Your task to perform on an android device: see tabs open on other devices in the chrome app Image 0: 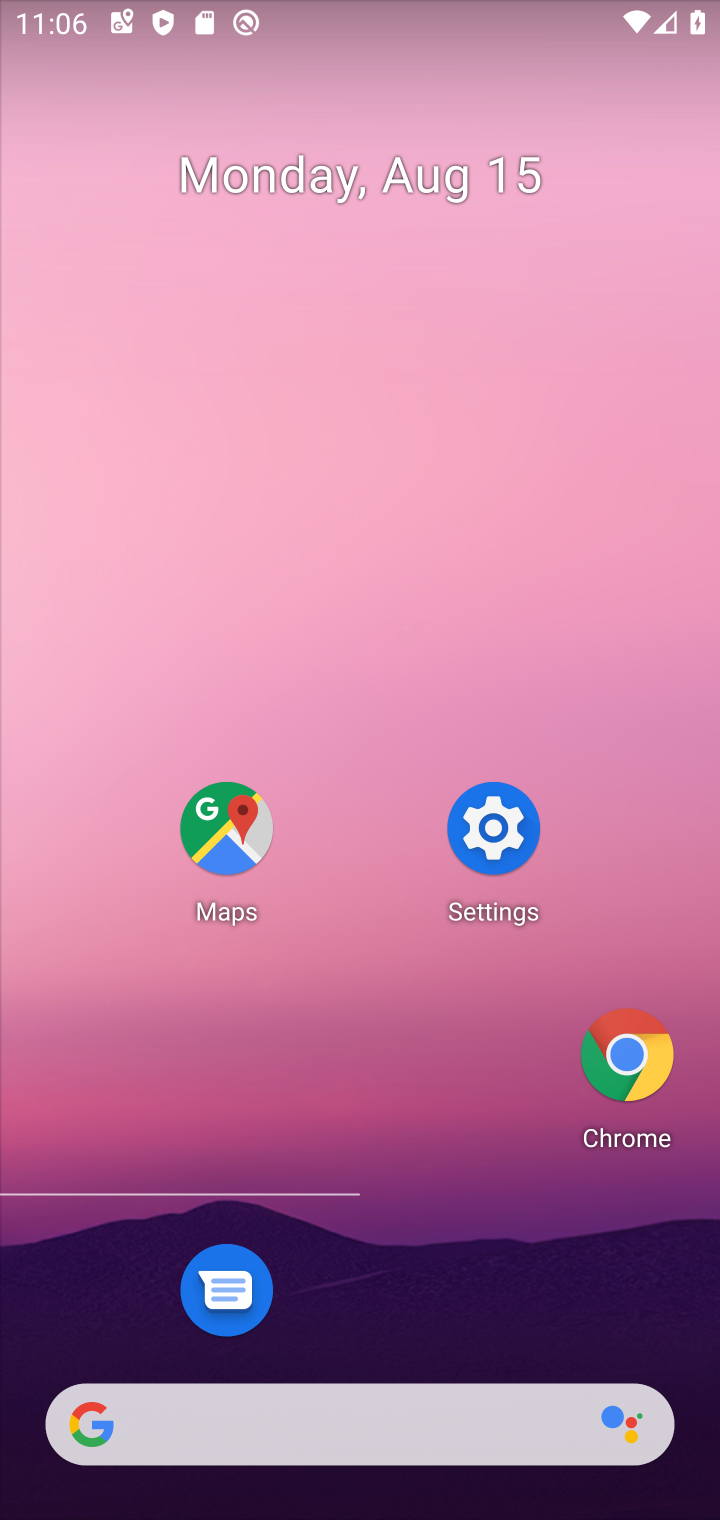
Step 0: press home button
Your task to perform on an android device: see tabs open on other devices in the chrome app Image 1: 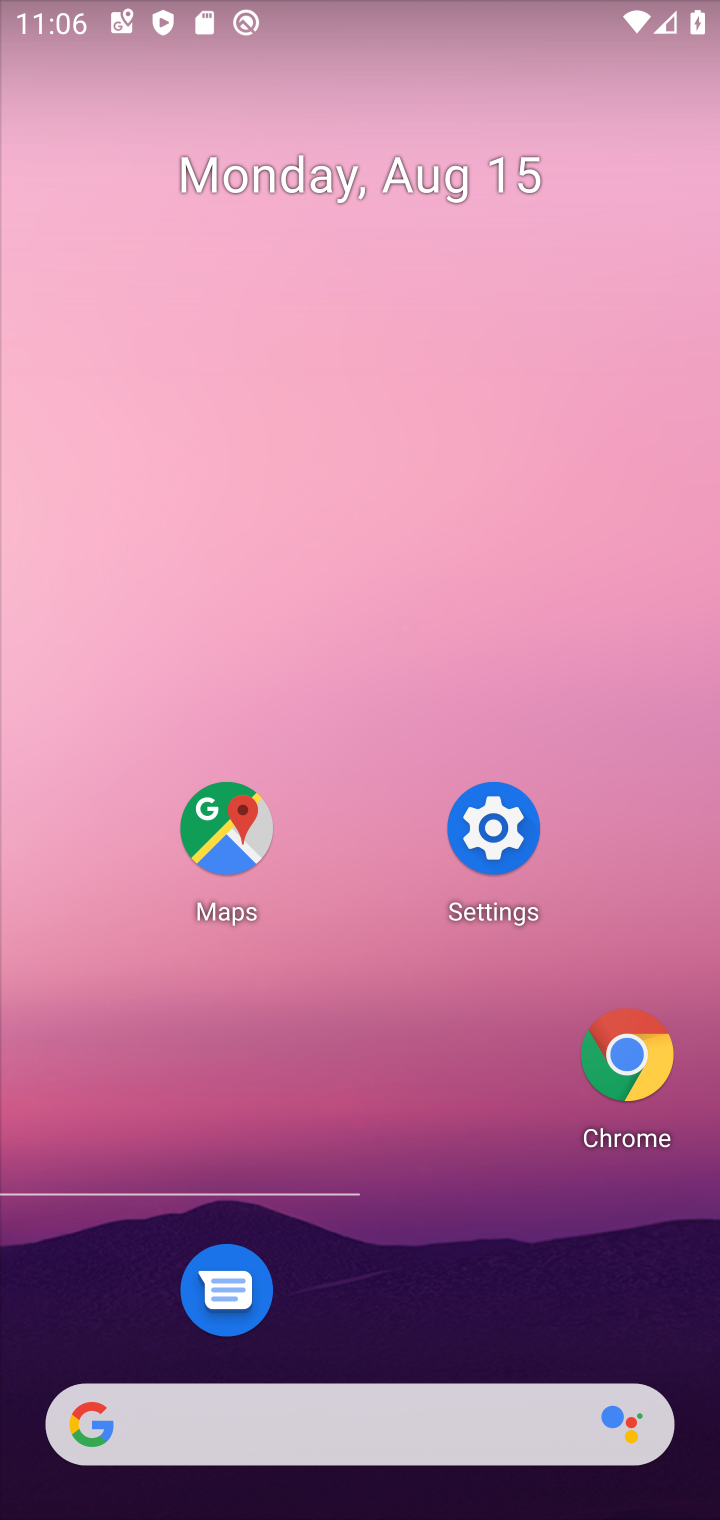
Step 1: click (512, 807)
Your task to perform on an android device: see tabs open on other devices in the chrome app Image 2: 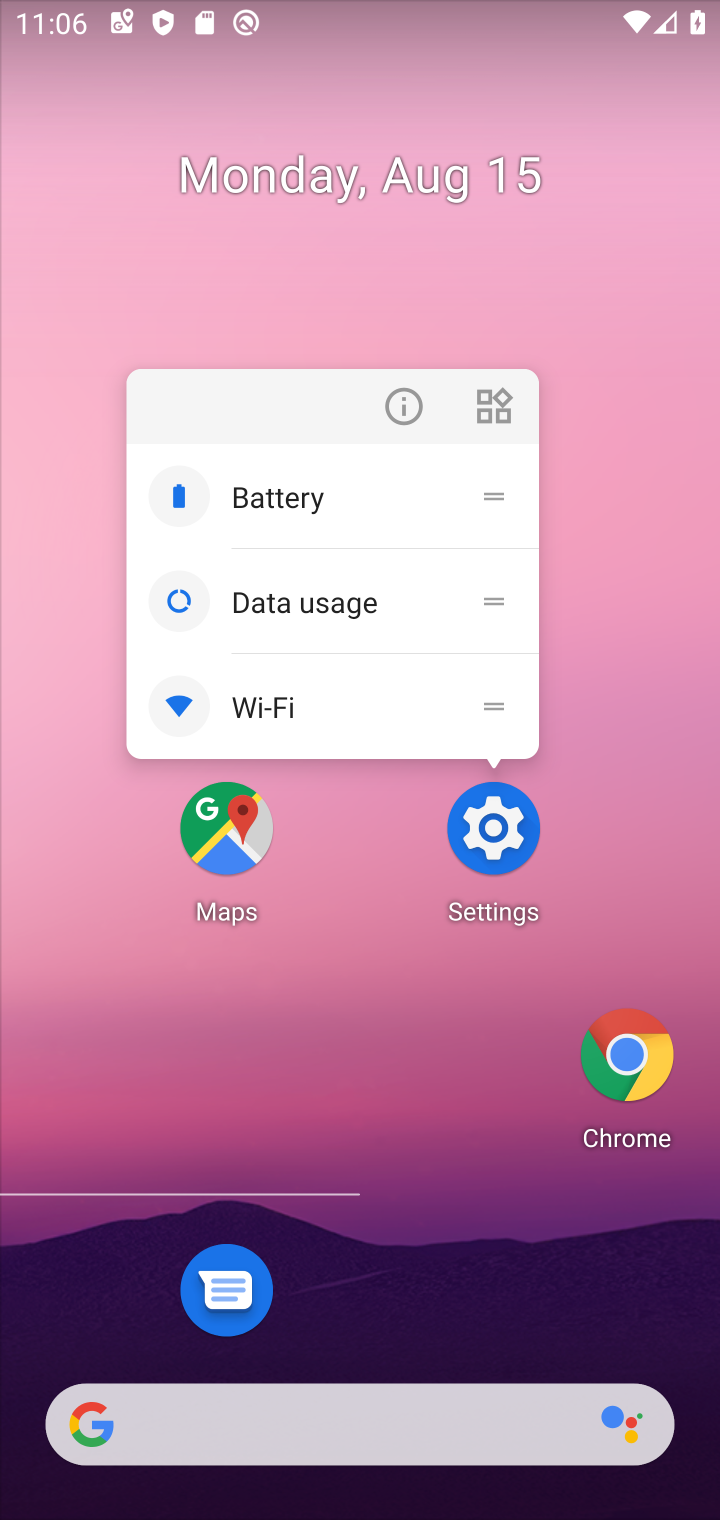
Step 2: click (619, 1051)
Your task to perform on an android device: see tabs open on other devices in the chrome app Image 3: 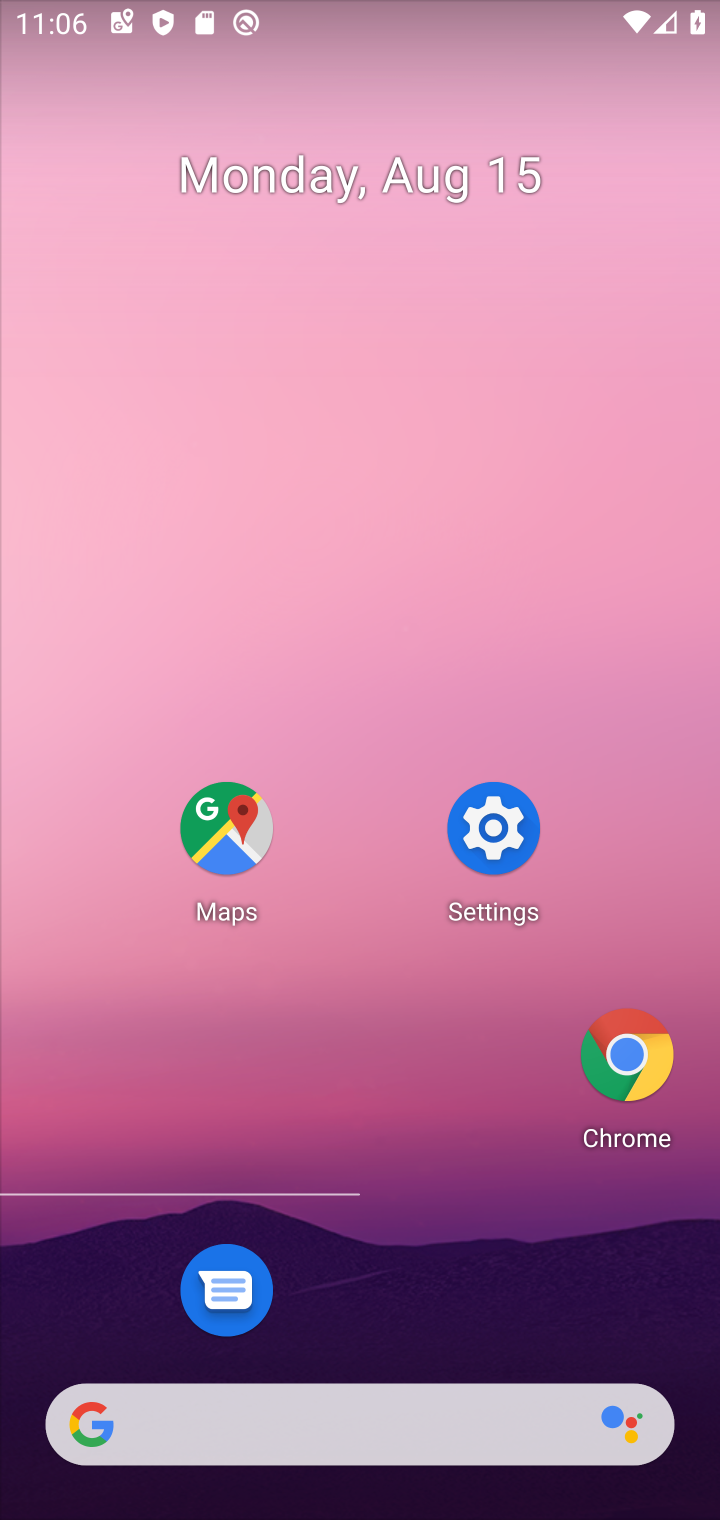
Step 3: click (619, 1051)
Your task to perform on an android device: see tabs open on other devices in the chrome app Image 4: 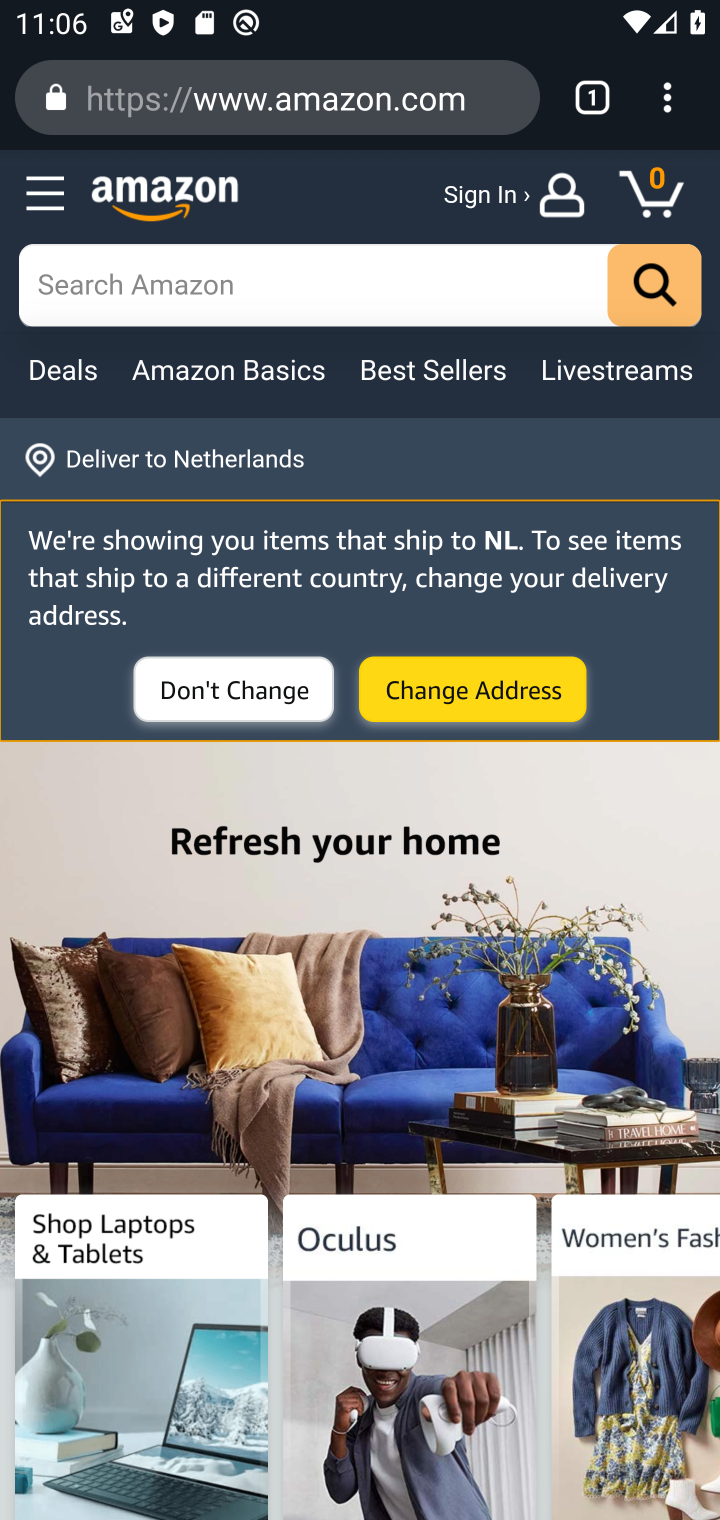
Step 4: task complete